Your task to perform on an android device: Open the gallery Image 0: 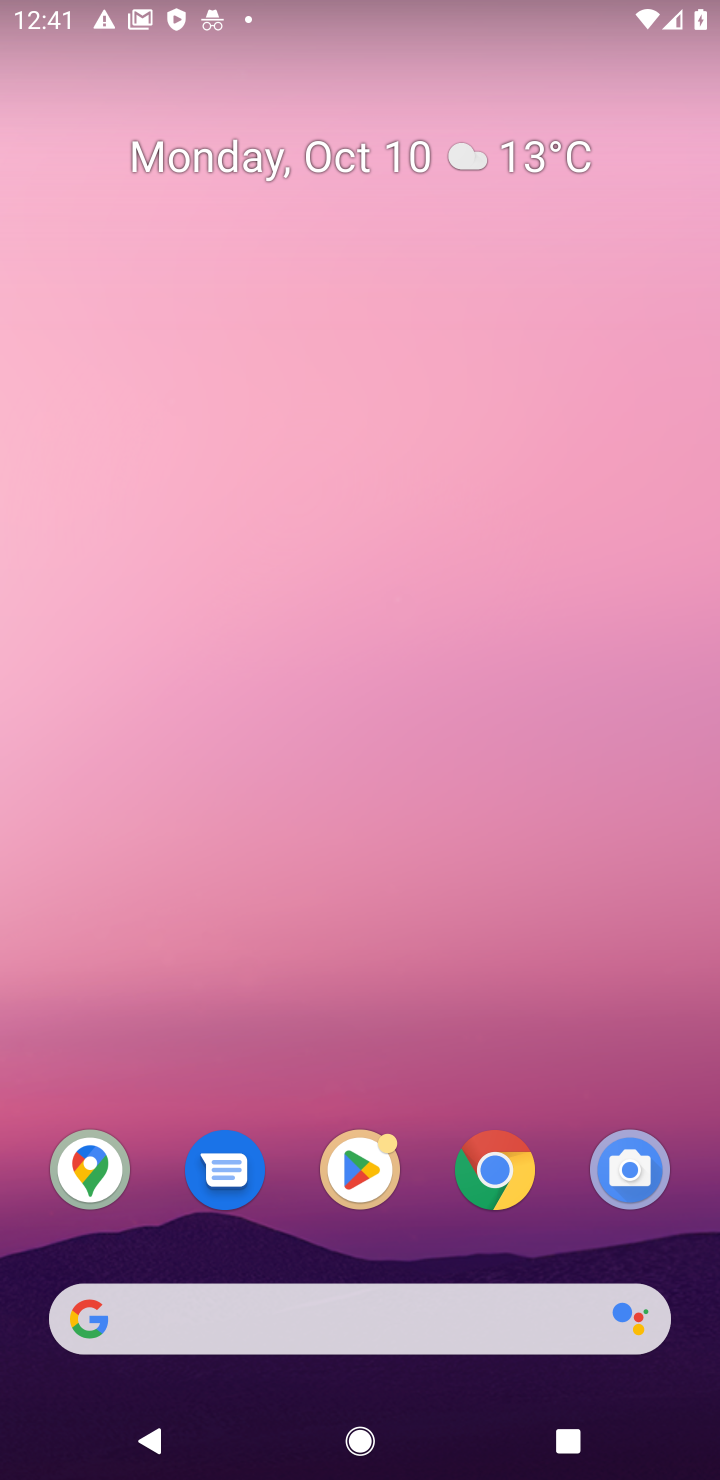
Step 0: drag from (197, 1294) to (176, 153)
Your task to perform on an android device: Open the gallery Image 1: 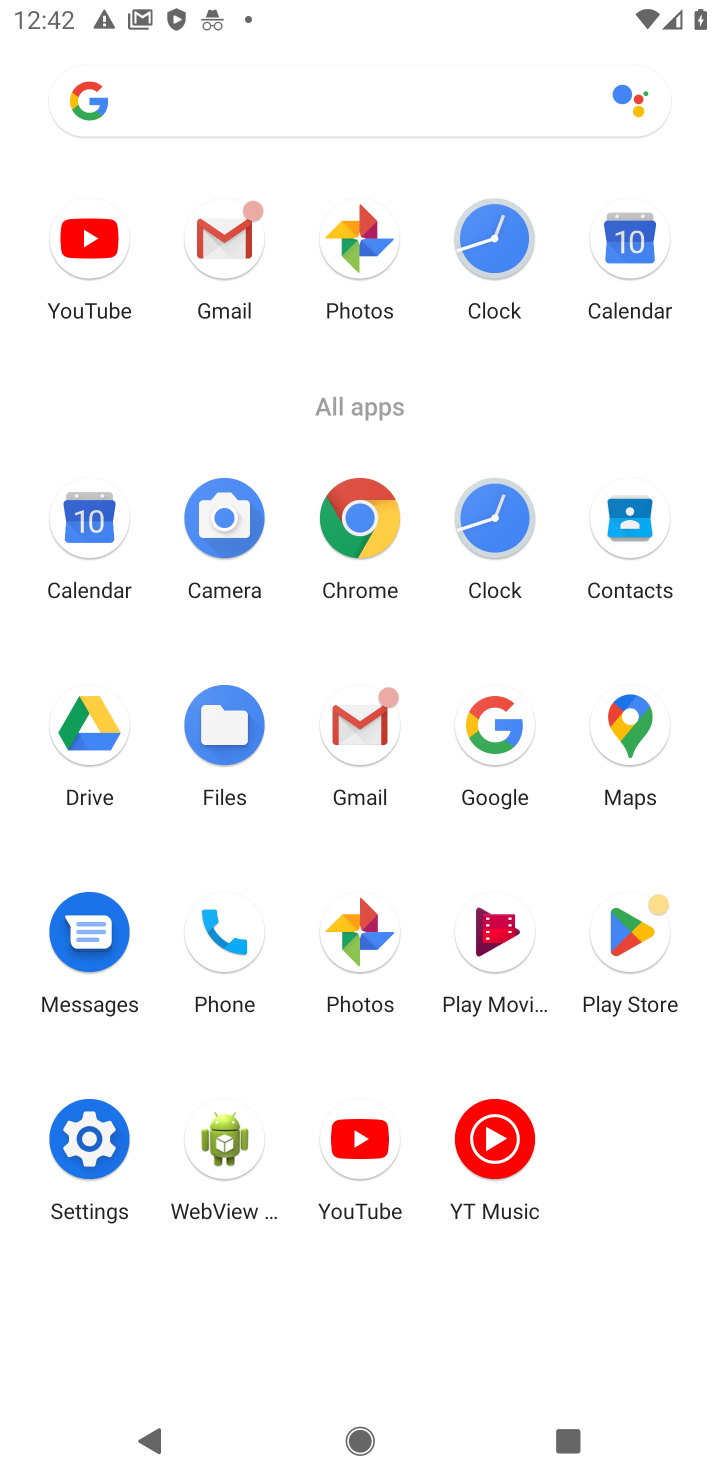
Step 1: click (646, 938)
Your task to perform on an android device: Open the gallery Image 2: 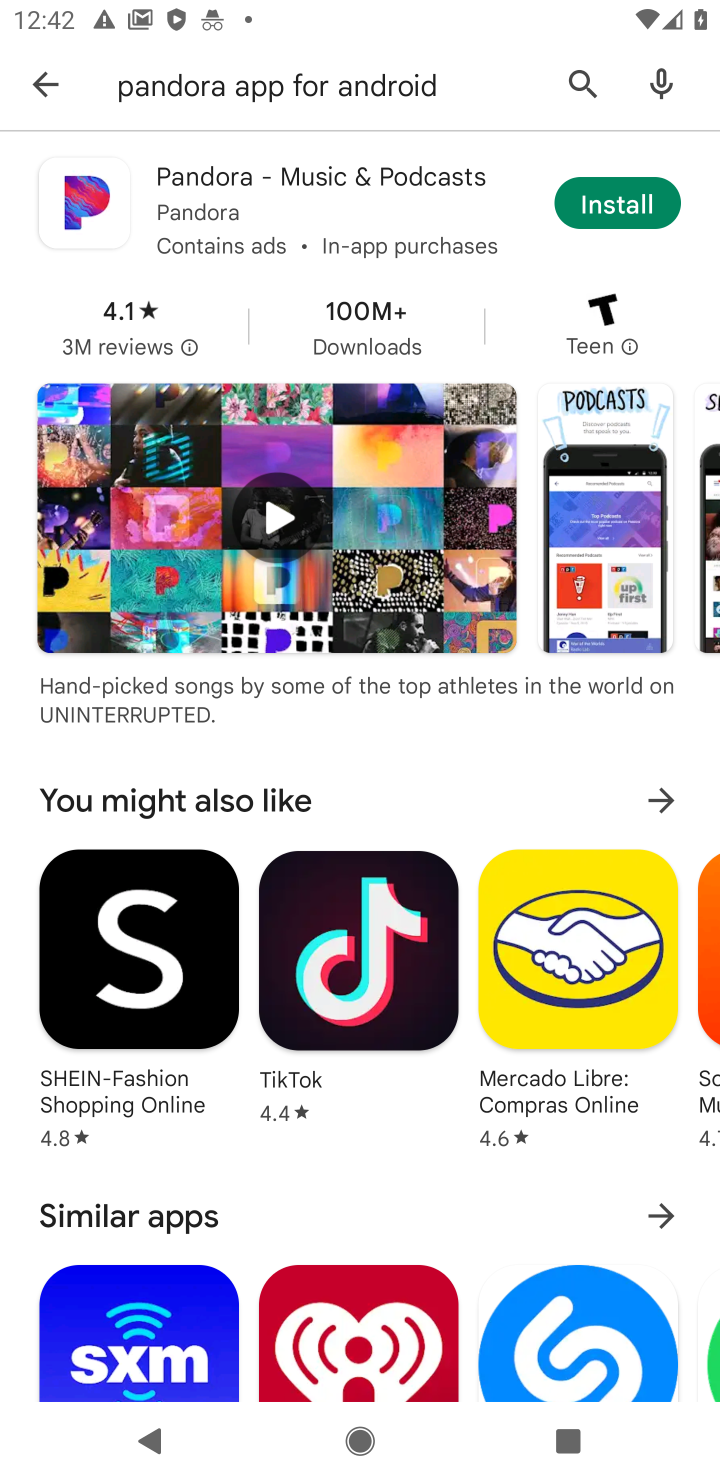
Step 2: press back button
Your task to perform on an android device: Open the gallery Image 3: 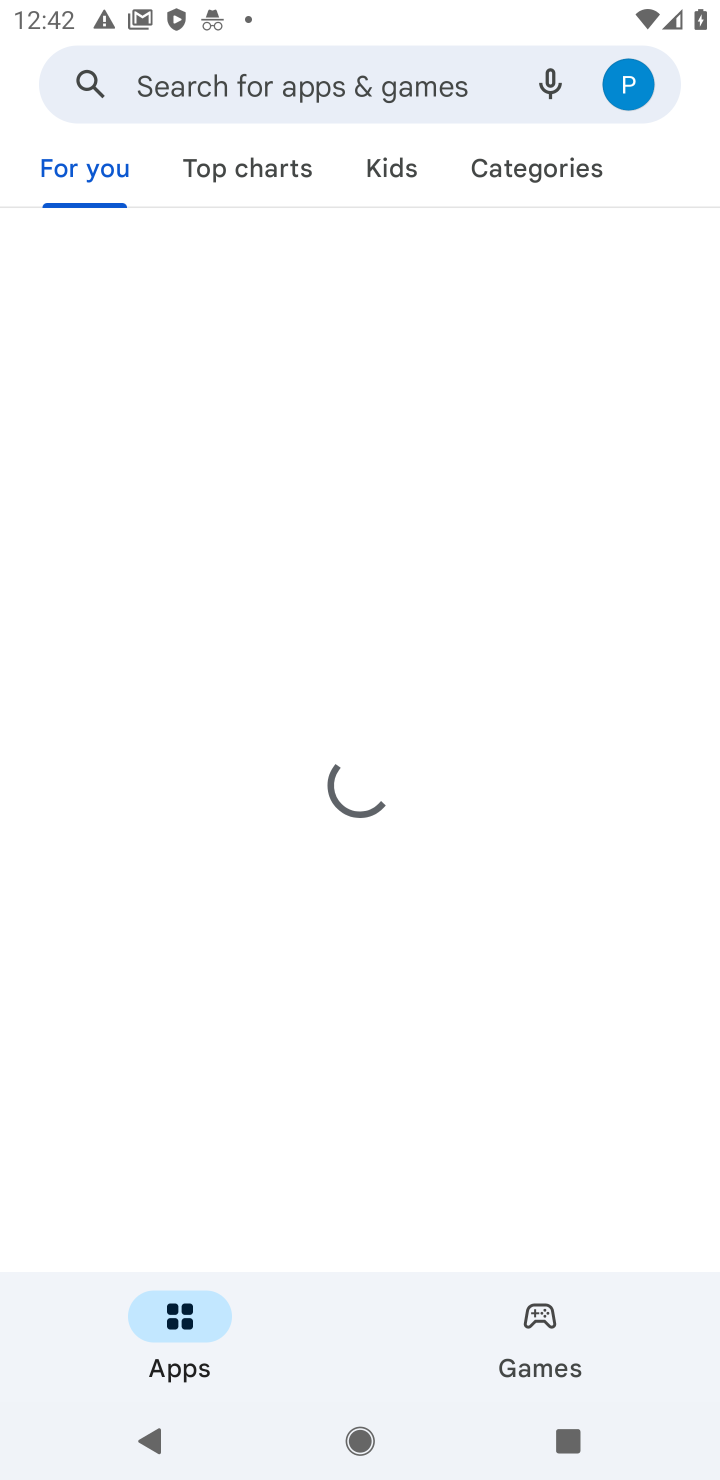
Step 3: click (397, 92)
Your task to perform on an android device: Open the gallery Image 4: 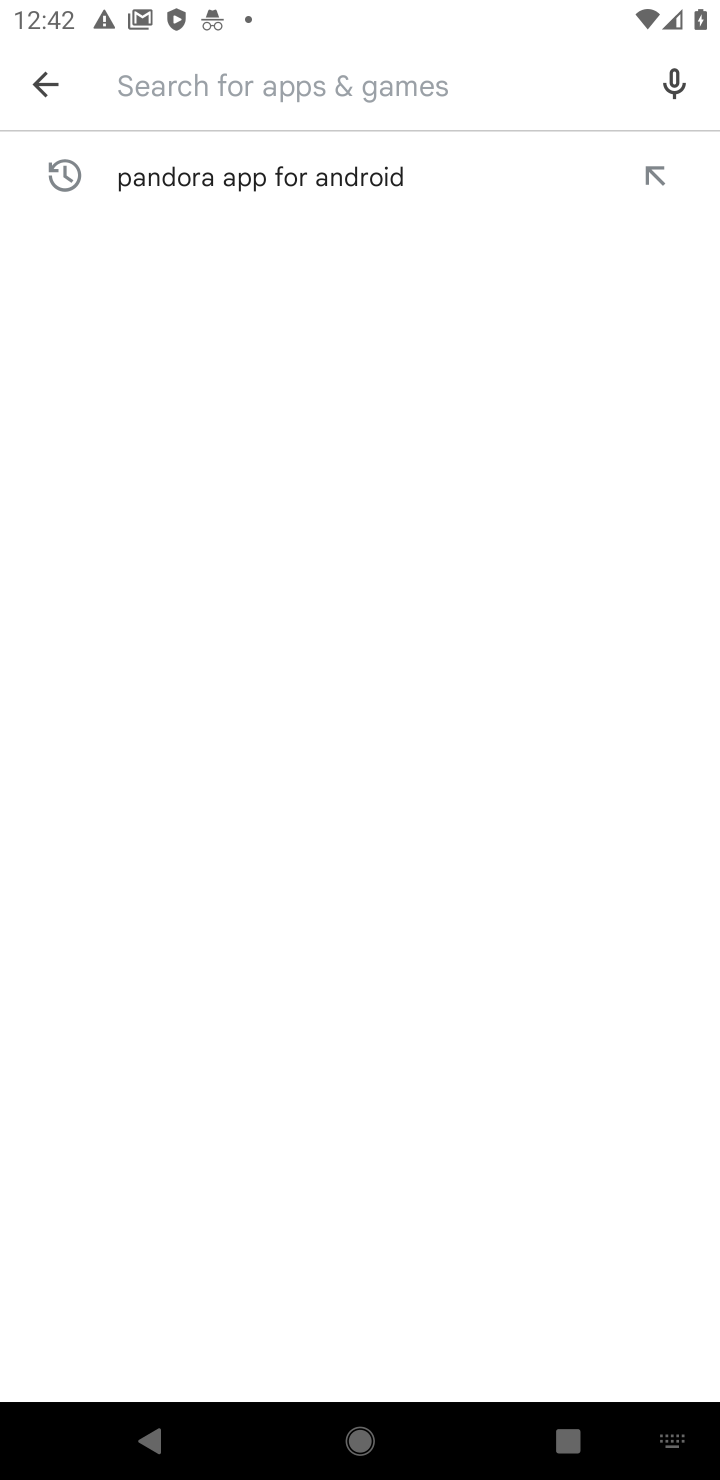
Step 4: type "gallery"
Your task to perform on an android device: Open the gallery Image 5: 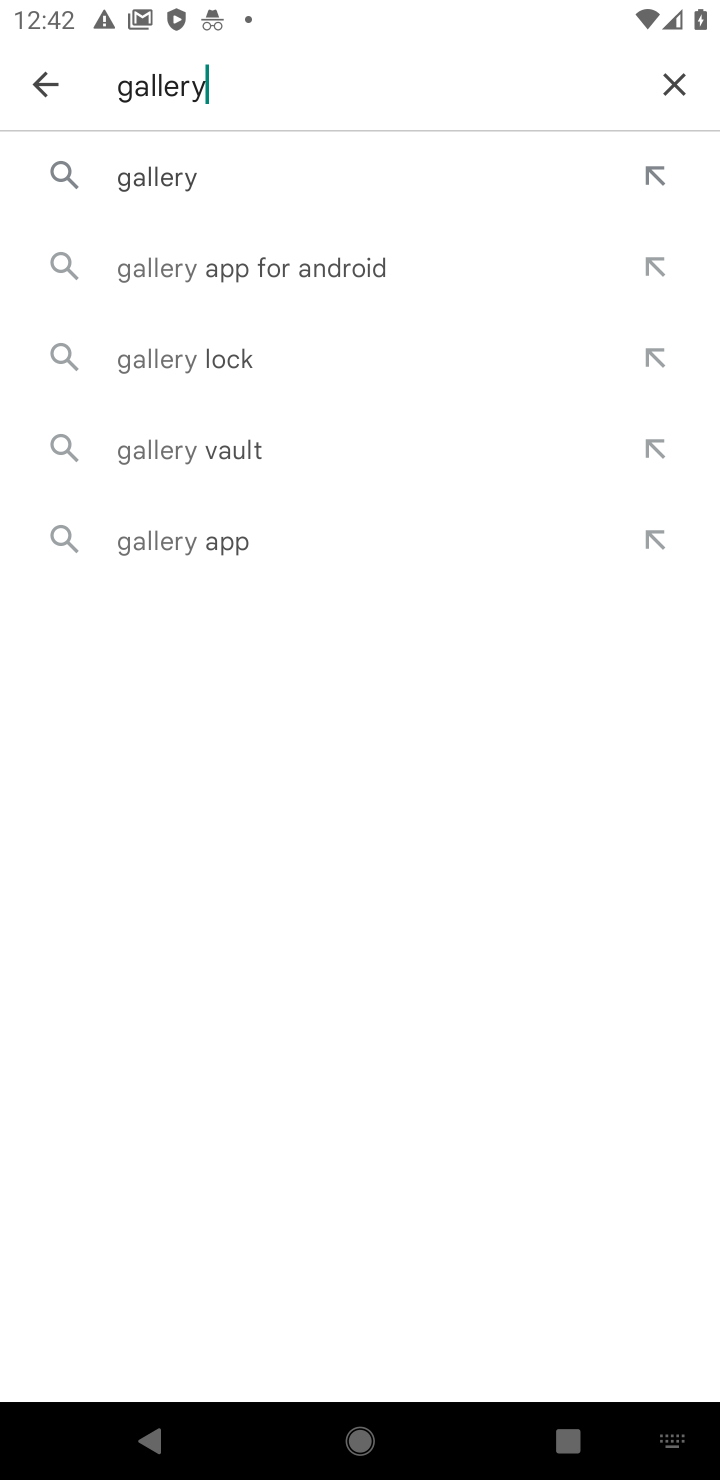
Step 5: type ""
Your task to perform on an android device: Open the gallery Image 6: 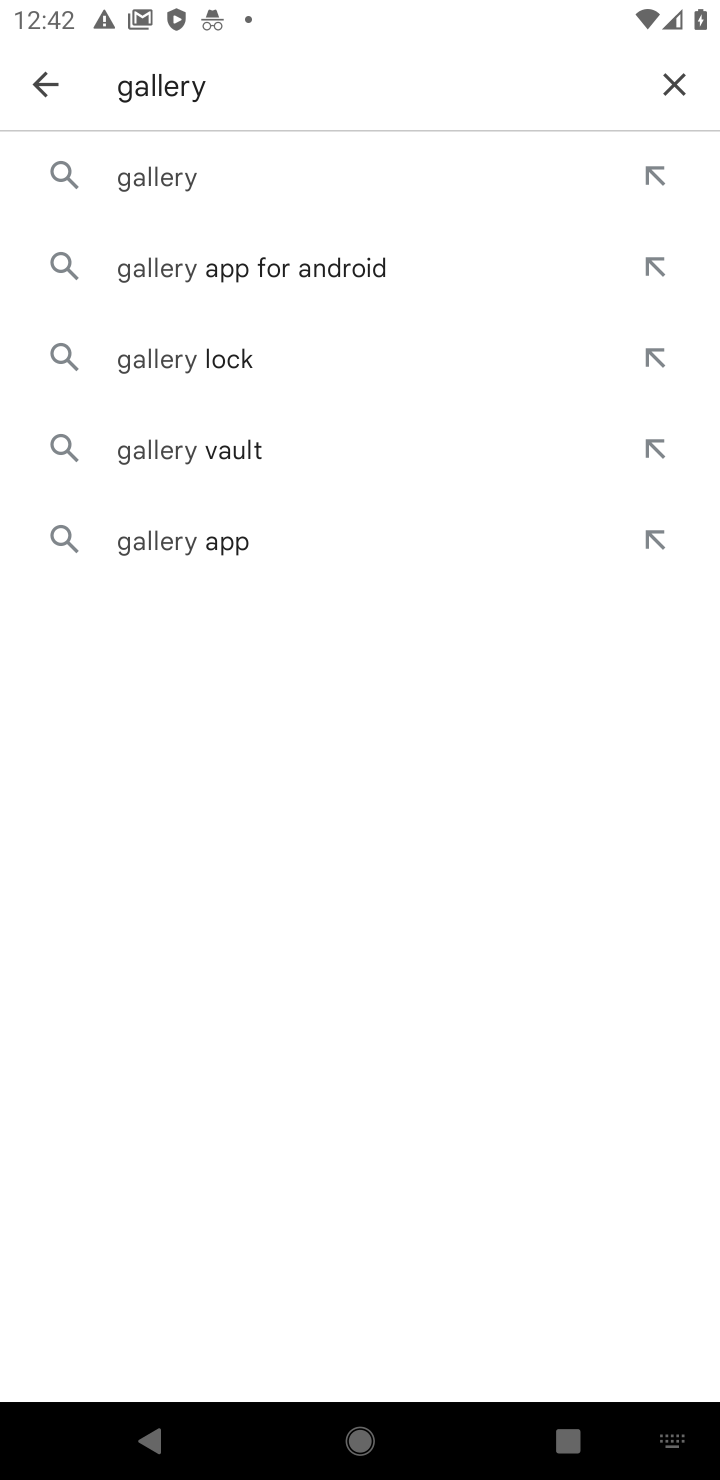
Step 6: click (163, 187)
Your task to perform on an android device: Open the gallery Image 7: 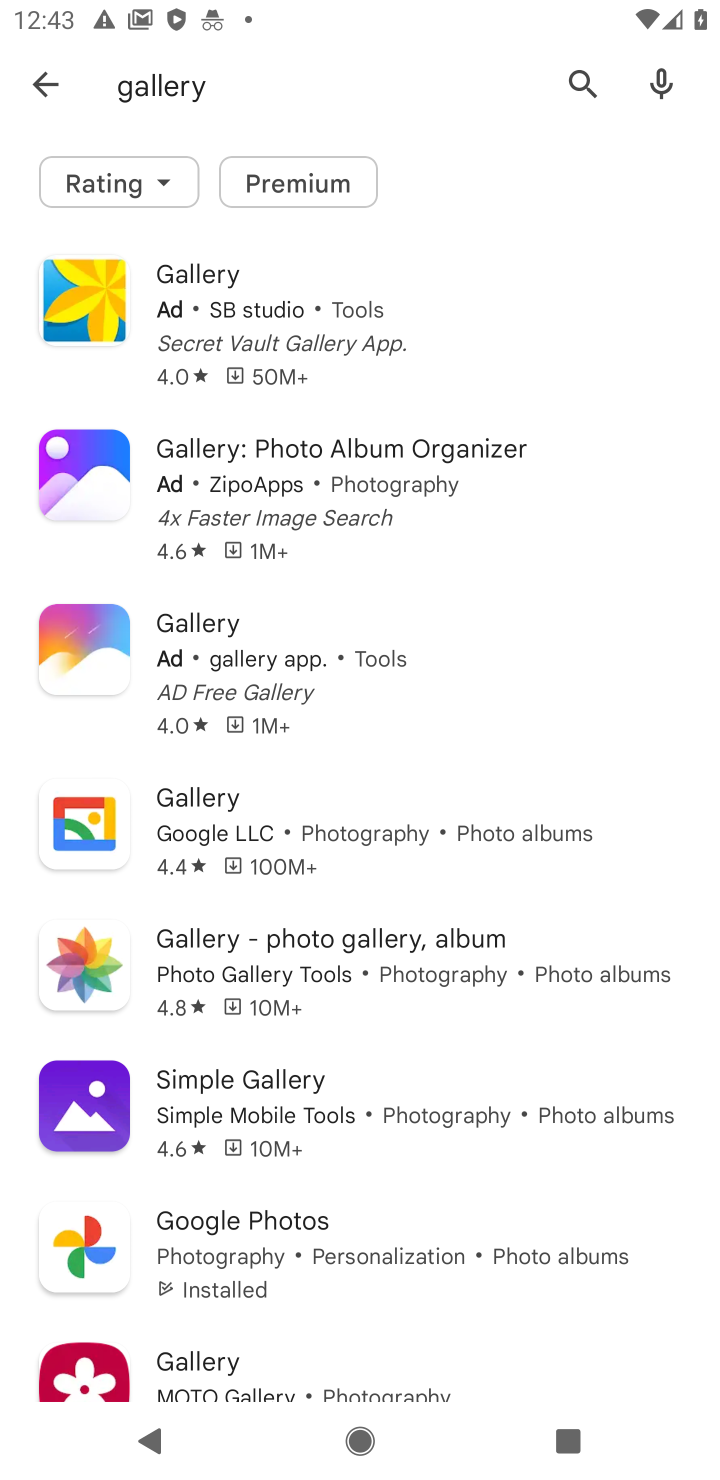
Step 7: task complete